Your task to perform on an android device: refresh tabs in the chrome app Image 0: 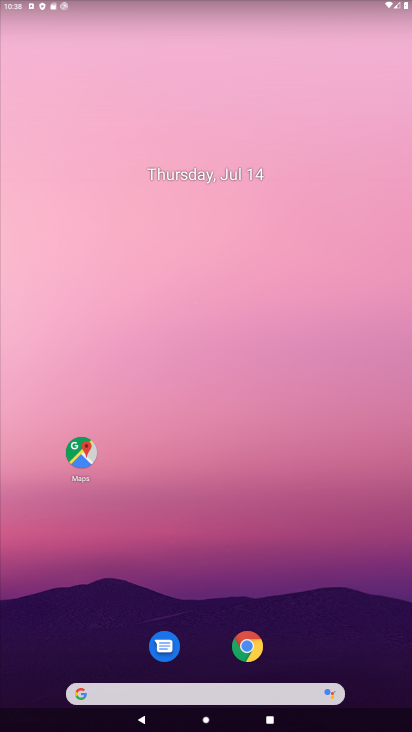
Step 0: click (248, 651)
Your task to perform on an android device: refresh tabs in the chrome app Image 1: 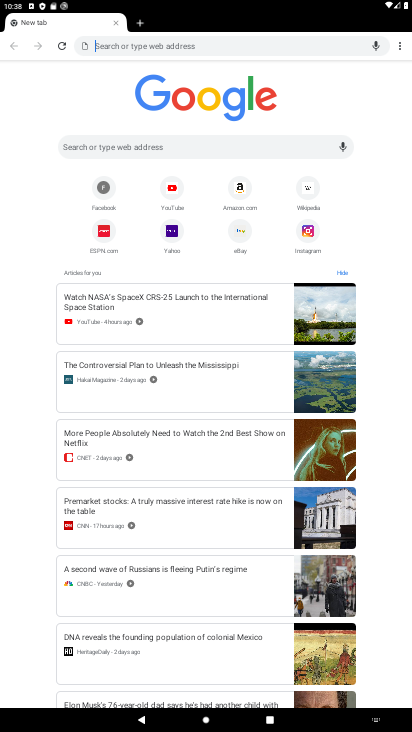
Step 1: click (63, 46)
Your task to perform on an android device: refresh tabs in the chrome app Image 2: 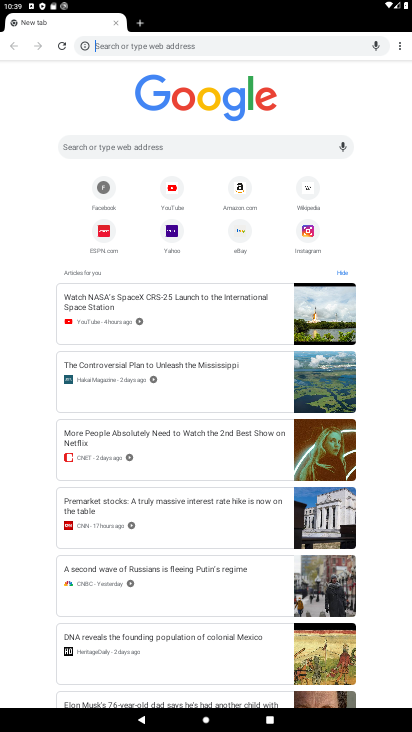
Step 2: task complete